Your task to perform on an android device: Open wifi settings Image 0: 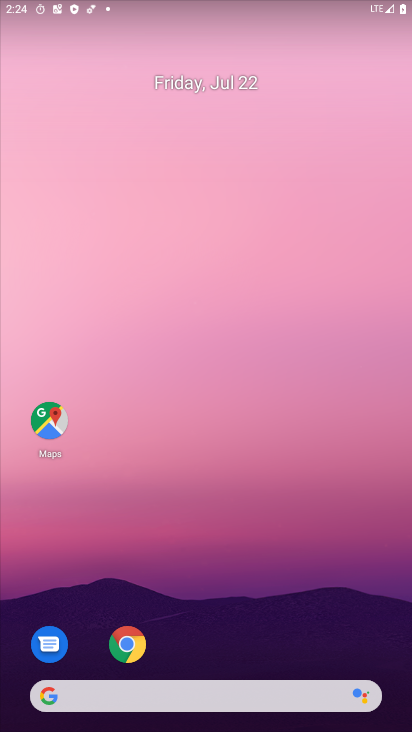
Step 0: press home button
Your task to perform on an android device: Open wifi settings Image 1: 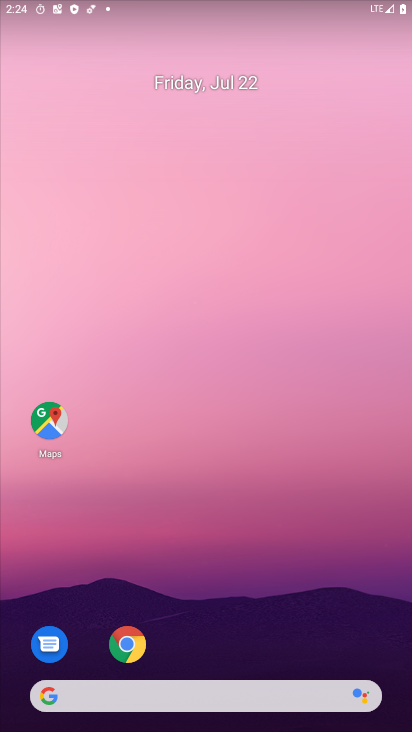
Step 1: drag from (262, 673) to (272, 0)
Your task to perform on an android device: Open wifi settings Image 2: 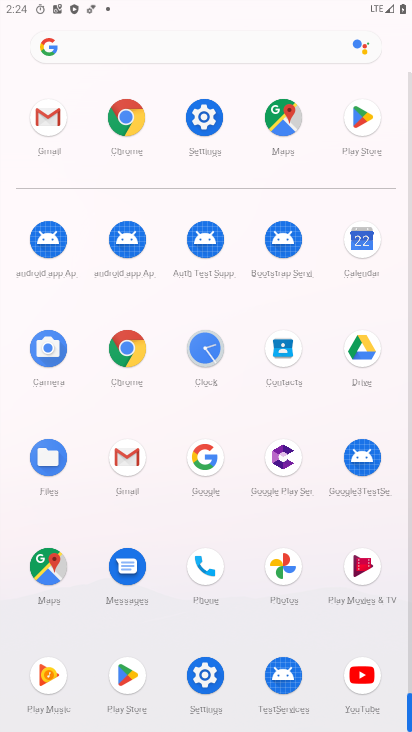
Step 2: click (198, 130)
Your task to perform on an android device: Open wifi settings Image 3: 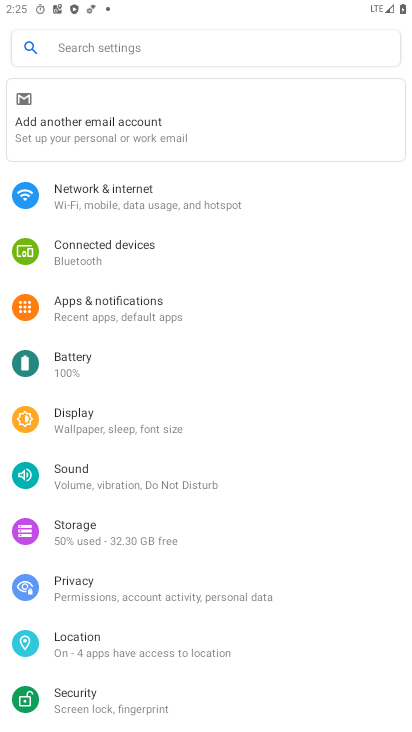
Step 3: click (136, 215)
Your task to perform on an android device: Open wifi settings Image 4: 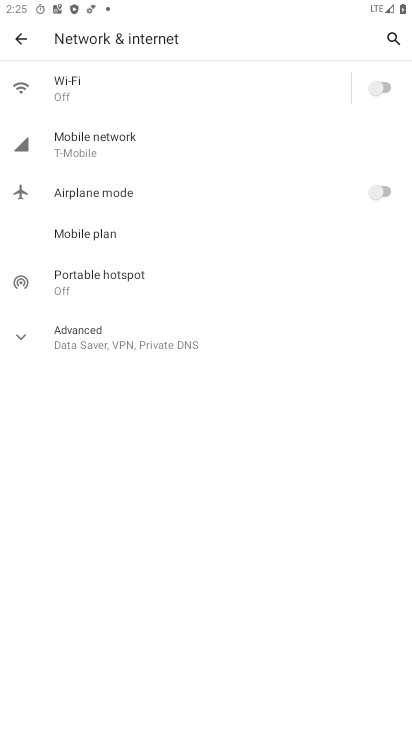
Step 4: click (104, 79)
Your task to perform on an android device: Open wifi settings Image 5: 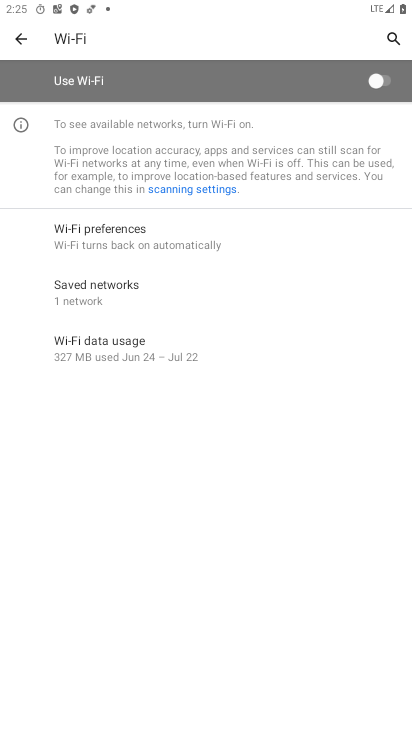
Step 5: task complete